Your task to perform on an android device: snooze an email in the gmail app Image 0: 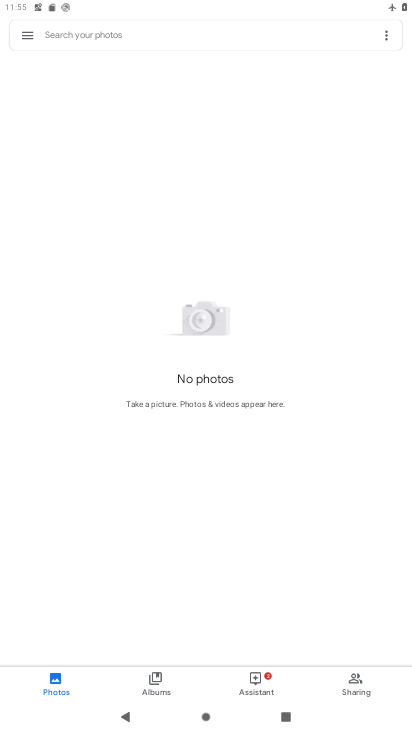
Step 0: press home button
Your task to perform on an android device: snooze an email in the gmail app Image 1: 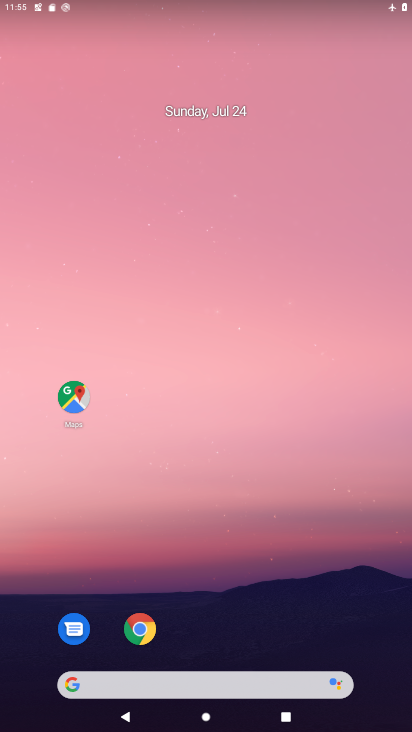
Step 1: drag from (207, 644) to (215, 57)
Your task to perform on an android device: snooze an email in the gmail app Image 2: 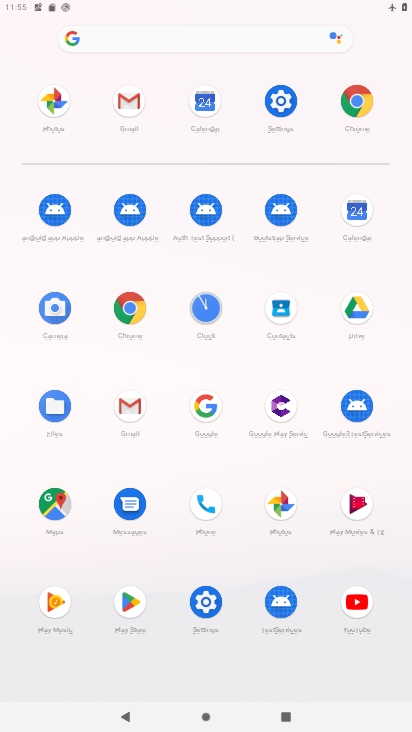
Step 2: click (131, 410)
Your task to perform on an android device: snooze an email in the gmail app Image 3: 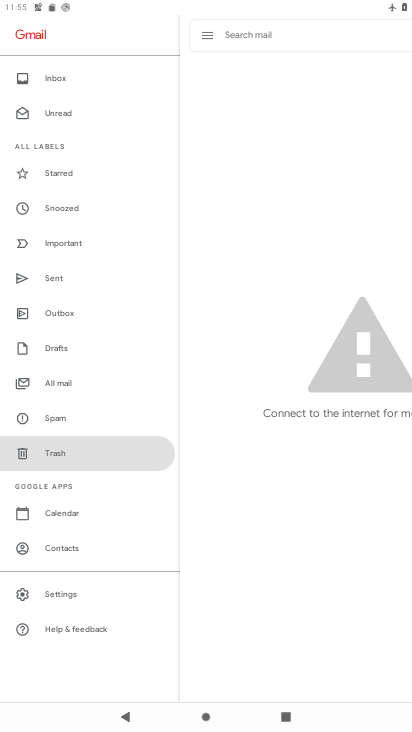
Step 3: drag from (96, 107) to (49, 451)
Your task to perform on an android device: snooze an email in the gmail app Image 4: 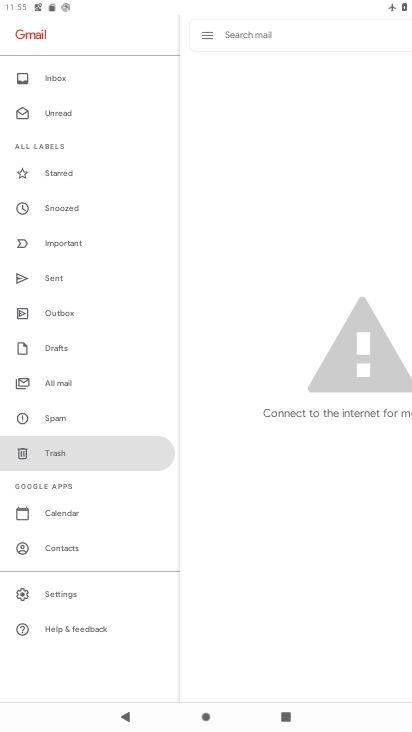
Step 4: click (50, 78)
Your task to perform on an android device: snooze an email in the gmail app Image 5: 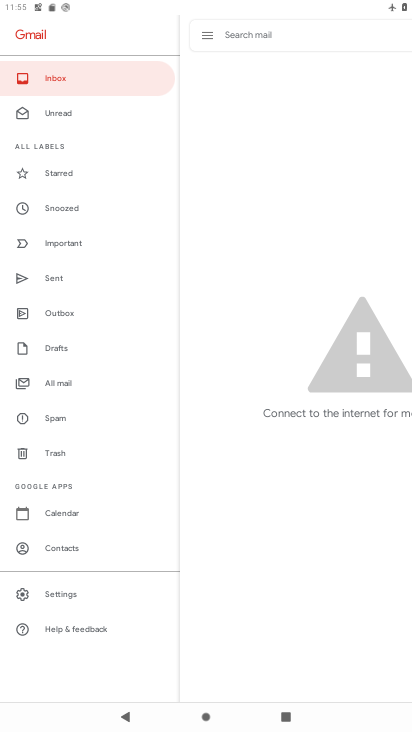
Step 5: task complete